Your task to perform on an android device: Go to Yahoo.com Image 0: 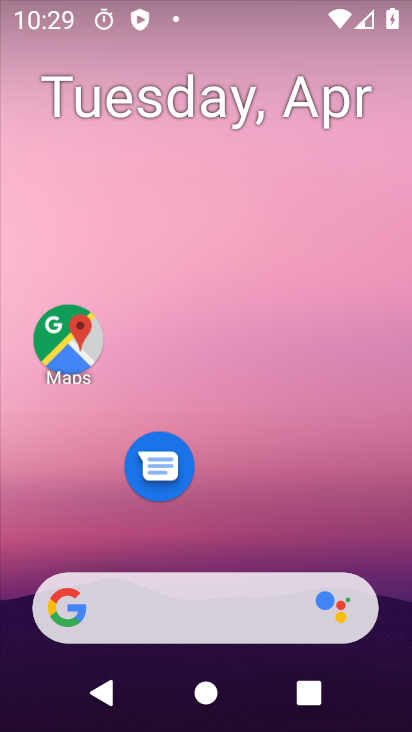
Step 0: drag from (286, 357) to (286, 167)
Your task to perform on an android device: Go to Yahoo.com Image 1: 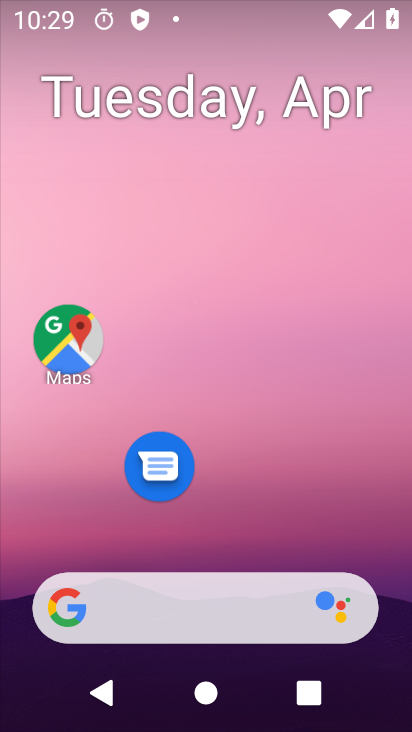
Step 1: drag from (231, 546) to (234, 4)
Your task to perform on an android device: Go to Yahoo.com Image 2: 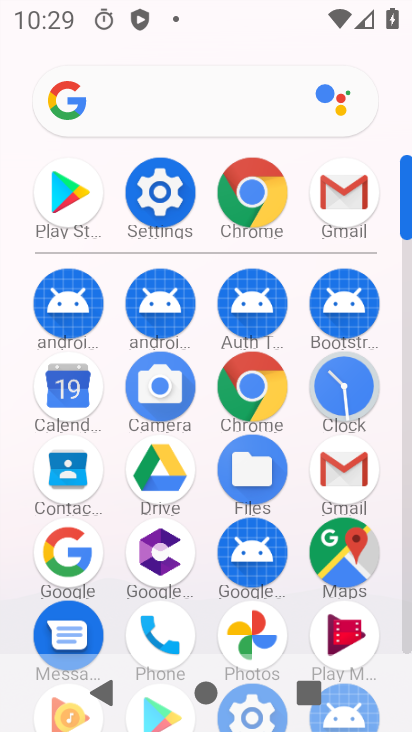
Step 2: click (238, 197)
Your task to perform on an android device: Go to Yahoo.com Image 3: 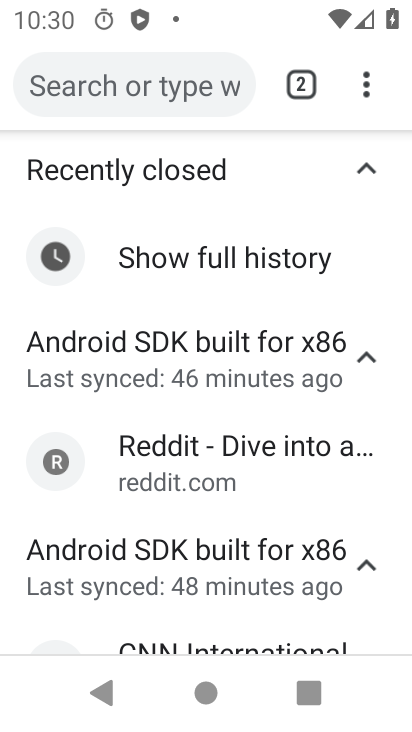
Step 3: click (206, 98)
Your task to perform on an android device: Go to Yahoo.com Image 4: 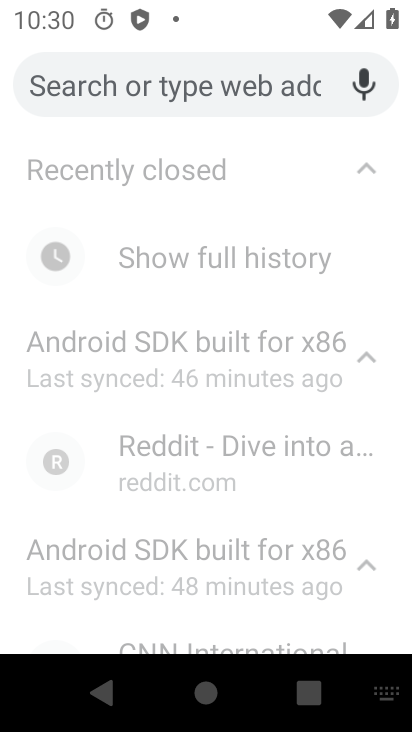
Step 4: type "yahoo.com"
Your task to perform on an android device: Go to Yahoo.com Image 5: 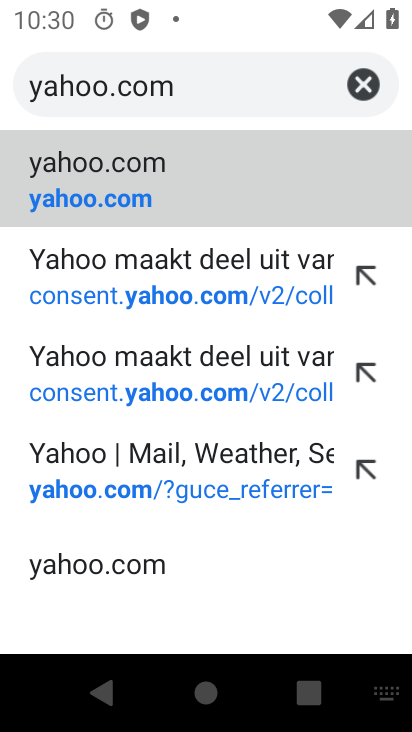
Step 5: click (153, 196)
Your task to perform on an android device: Go to Yahoo.com Image 6: 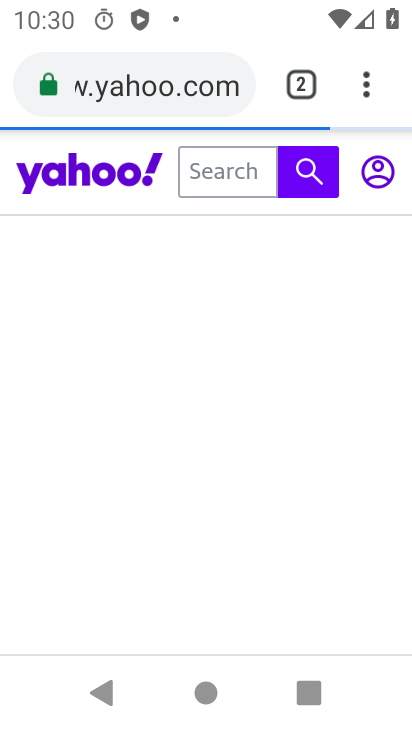
Step 6: task complete